Your task to perform on an android device: change alarm snooze length Image 0: 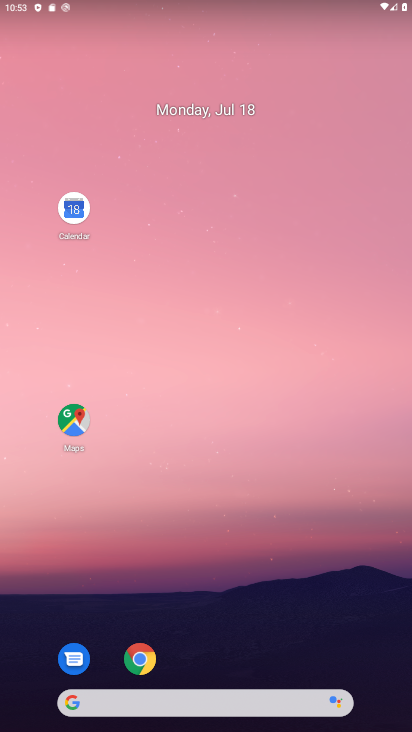
Step 0: drag from (302, 659) to (287, 239)
Your task to perform on an android device: change alarm snooze length Image 1: 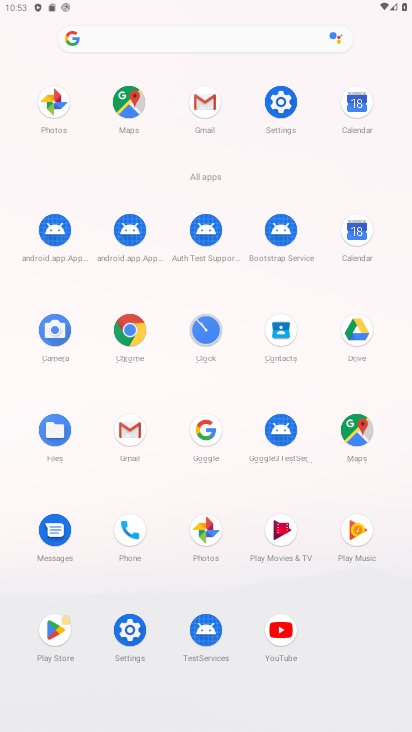
Step 1: drag from (216, 327) to (157, 220)
Your task to perform on an android device: change alarm snooze length Image 2: 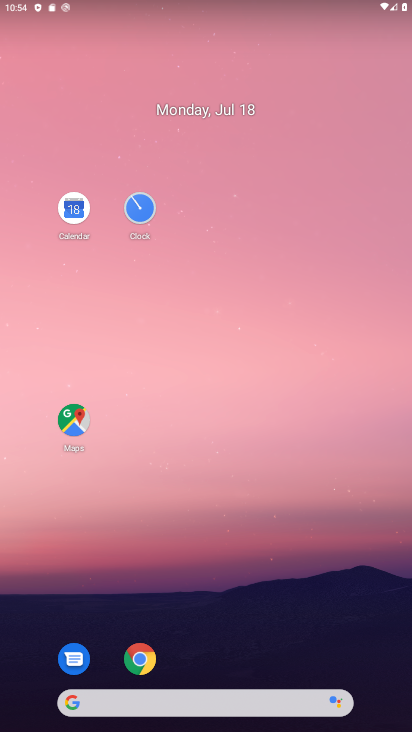
Step 2: click (137, 209)
Your task to perform on an android device: change alarm snooze length Image 3: 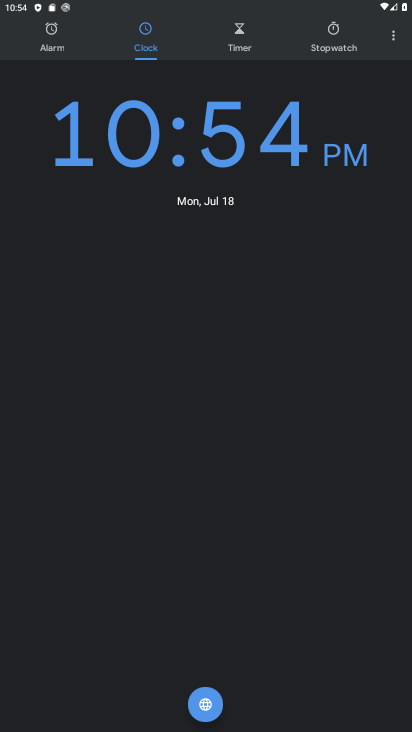
Step 3: click (388, 35)
Your task to perform on an android device: change alarm snooze length Image 4: 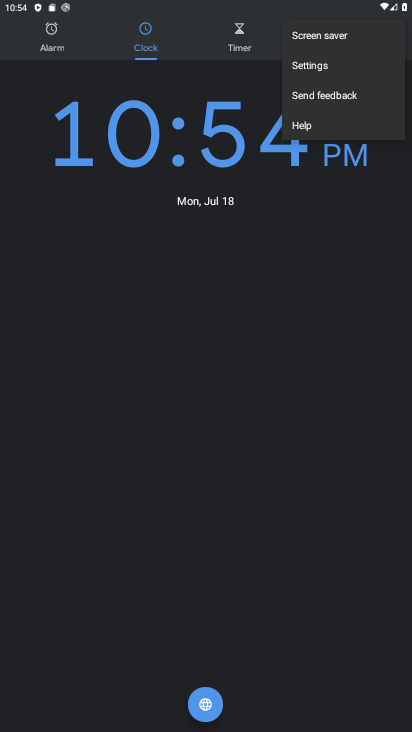
Step 4: click (339, 69)
Your task to perform on an android device: change alarm snooze length Image 5: 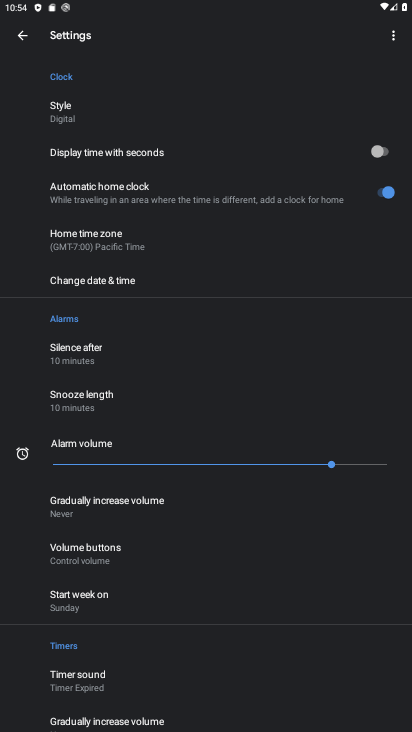
Step 5: click (109, 403)
Your task to perform on an android device: change alarm snooze length Image 6: 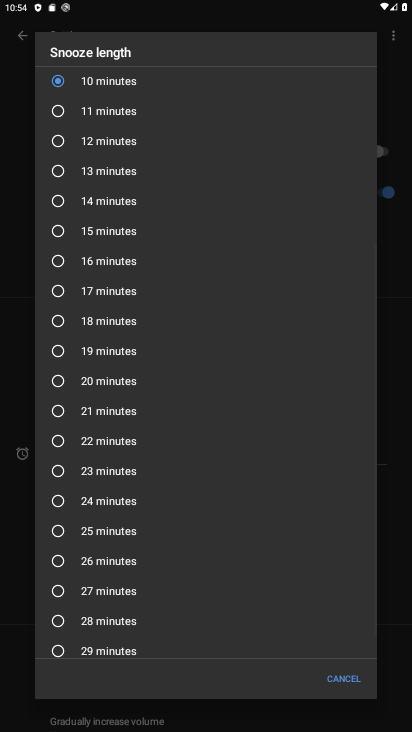
Step 6: click (125, 116)
Your task to perform on an android device: change alarm snooze length Image 7: 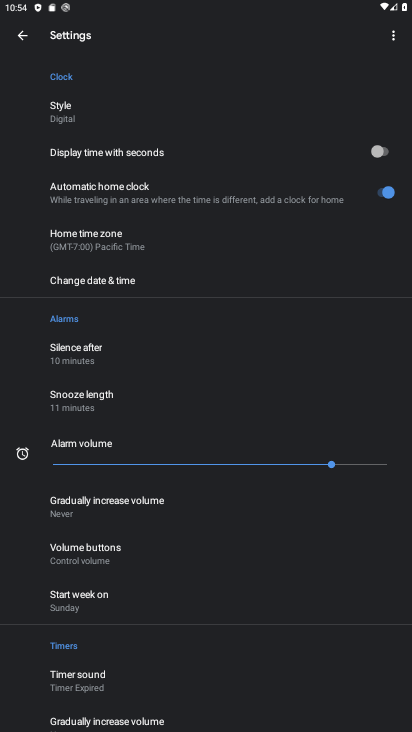
Step 7: task complete